Your task to perform on an android device: set default search engine in the chrome app Image 0: 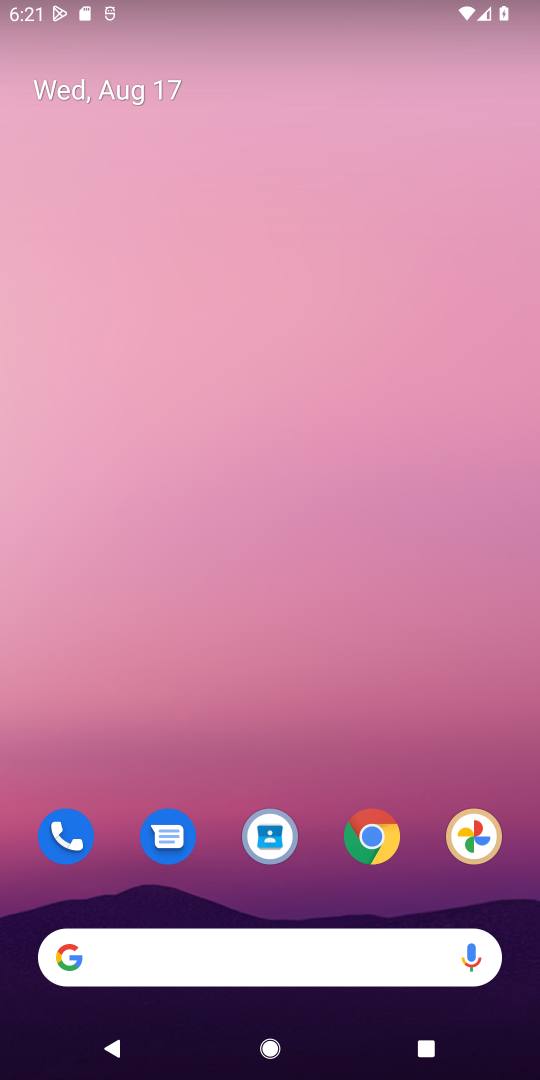
Step 0: drag from (269, 729) to (398, 198)
Your task to perform on an android device: set default search engine in the chrome app Image 1: 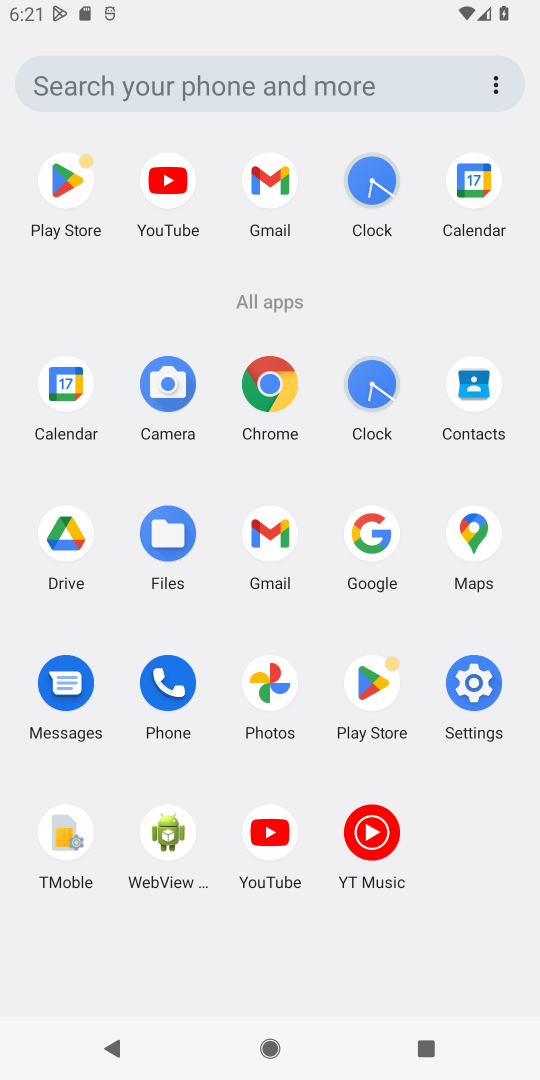
Step 1: click (269, 399)
Your task to perform on an android device: set default search engine in the chrome app Image 2: 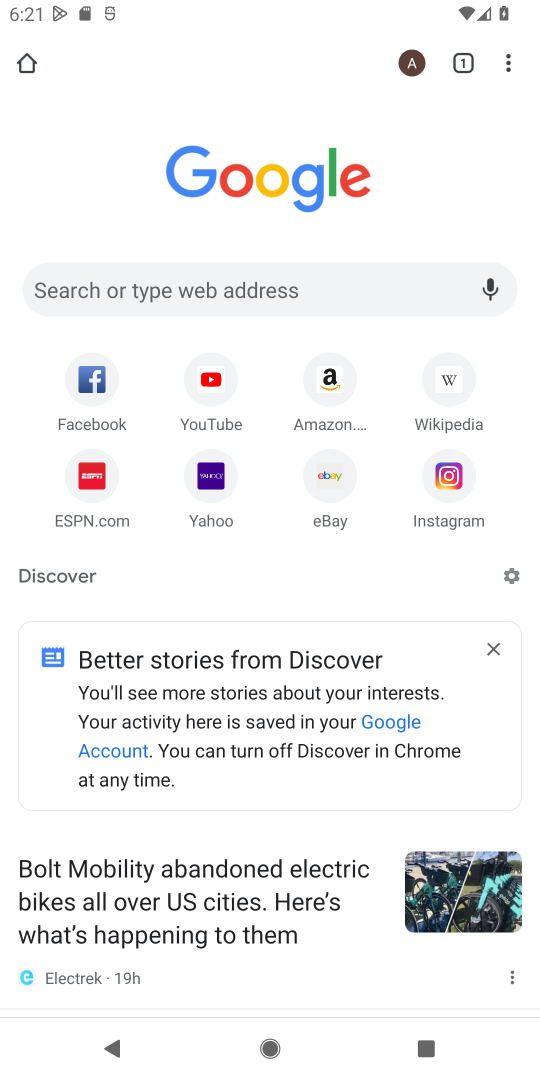
Step 2: press home button
Your task to perform on an android device: set default search engine in the chrome app Image 3: 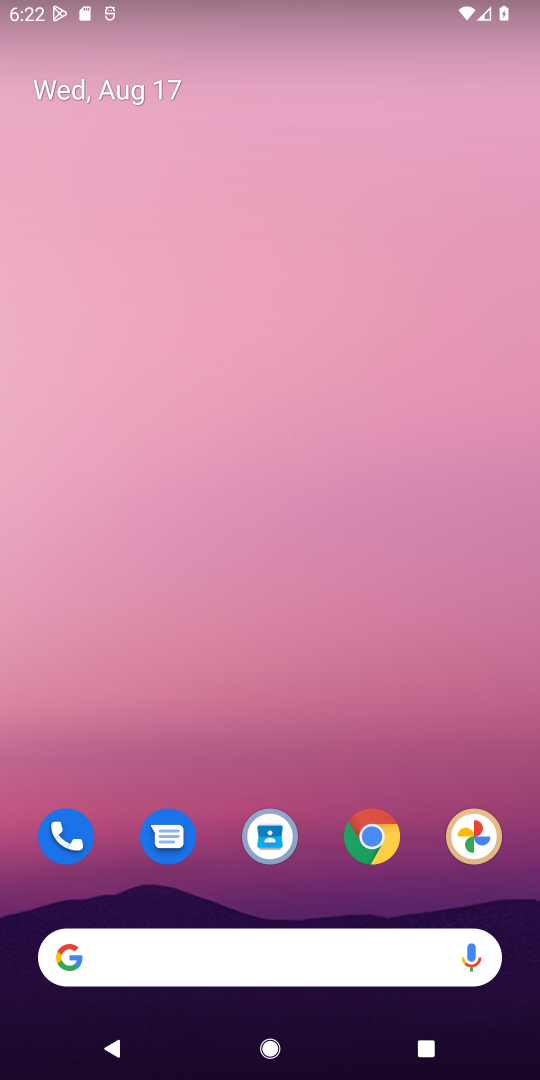
Step 3: click (386, 845)
Your task to perform on an android device: set default search engine in the chrome app Image 4: 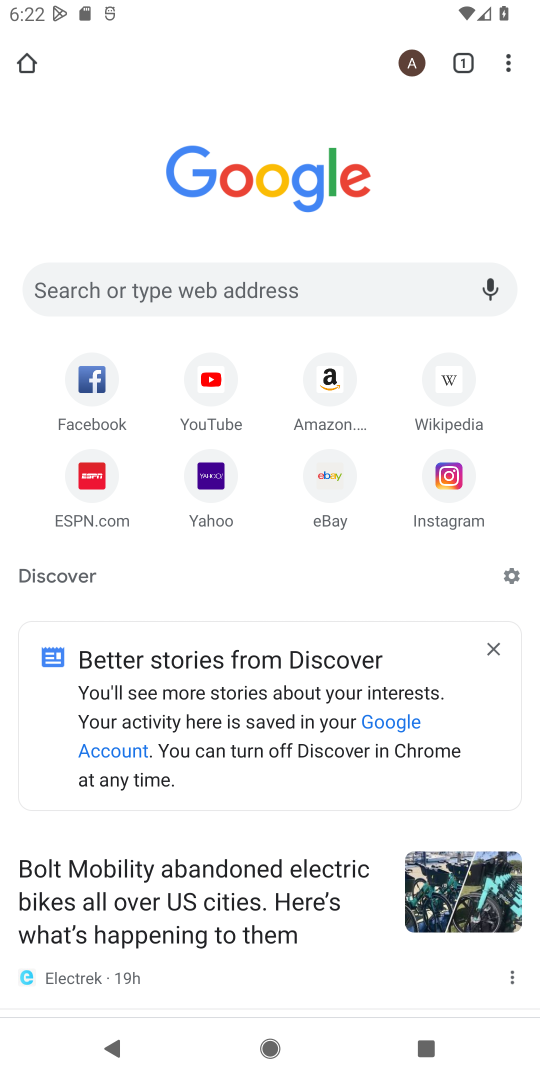
Step 4: click (517, 67)
Your task to perform on an android device: set default search engine in the chrome app Image 5: 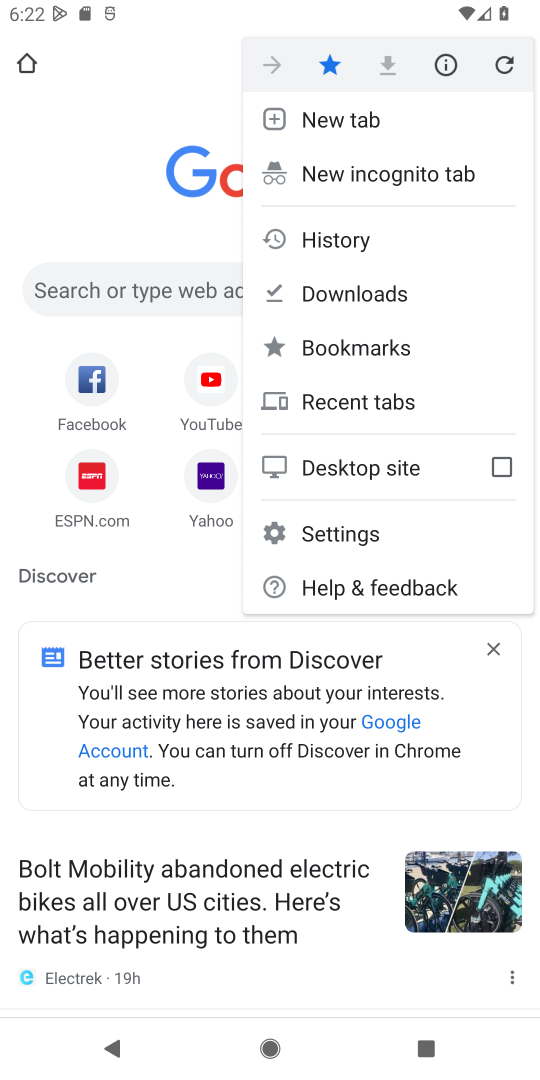
Step 5: click (322, 235)
Your task to perform on an android device: set default search engine in the chrome app Image 6: 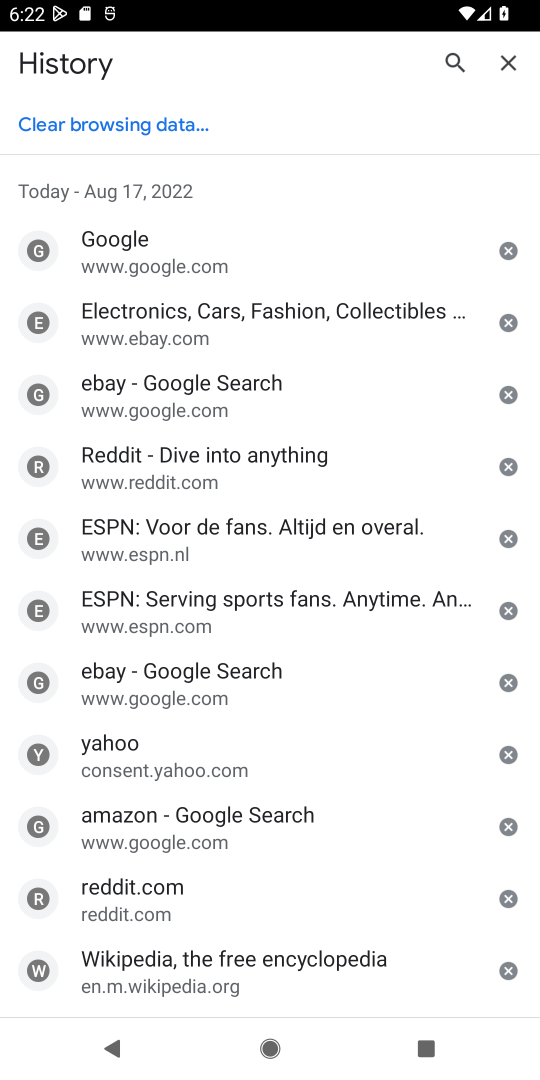
Step 6: task complete